Your task to perform on an android device: Clear the shopping cart on ebay. Search for apple airpods on ebay, select the first entry, and add it to the cart. Image 0: 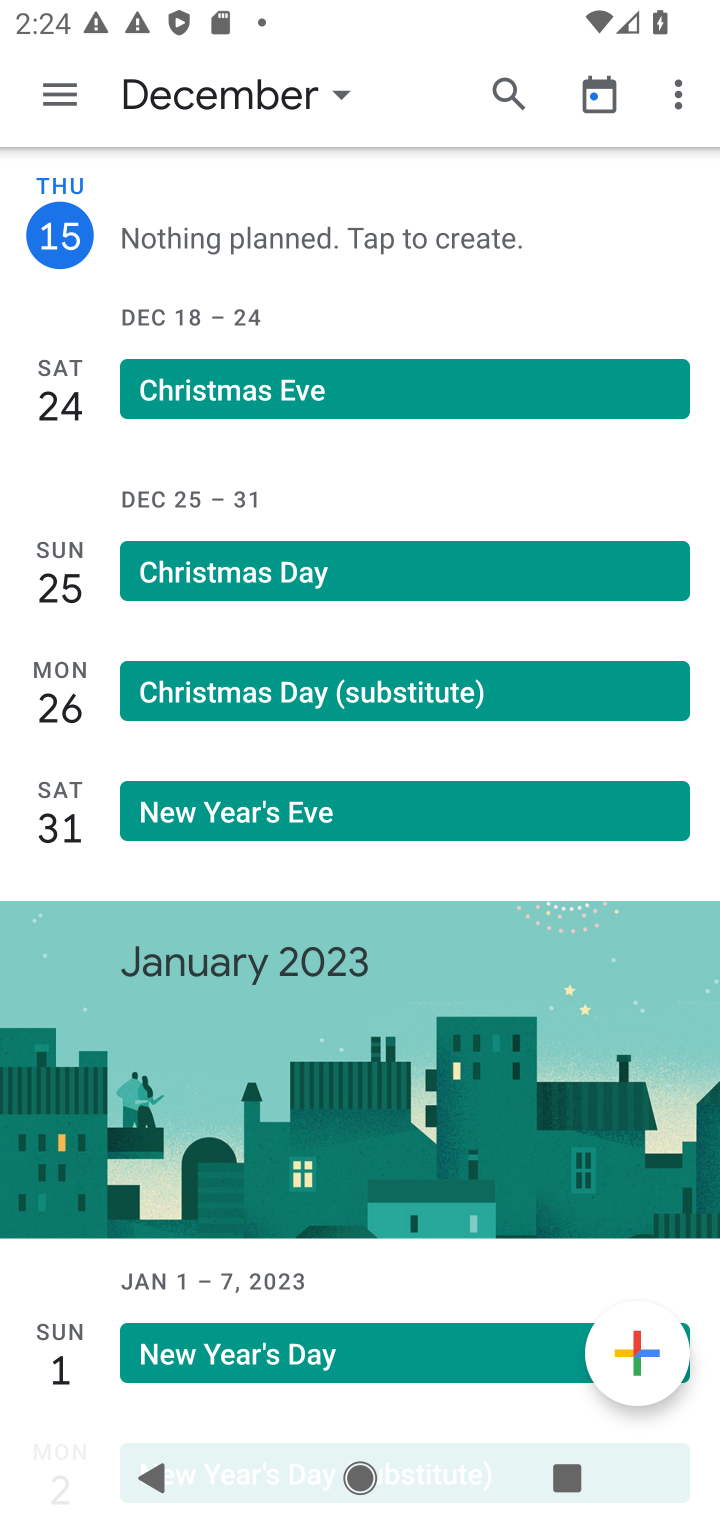
Step 0: press home button
Your task to perform on an android device: Clear the shopping cart on ebay. Search for apple airpods on ebay, select the first entry, and add it to the cart. Image 1: 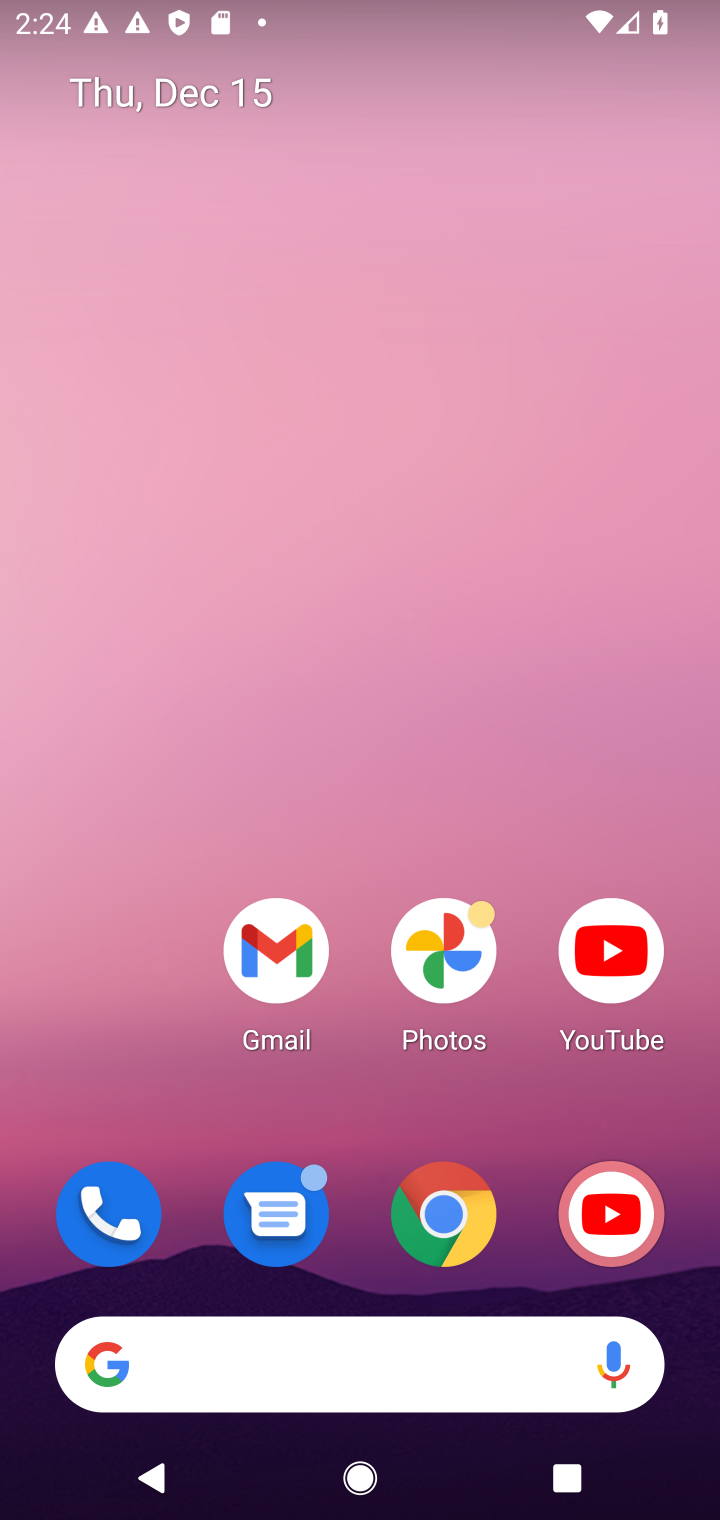
Step 1: click (442, 1224)
Your task to perform on an android device: Clear the shopping cart on ebay. Search for apple airpods on ebay, select the first entry, and add it to the cart. Image 2: 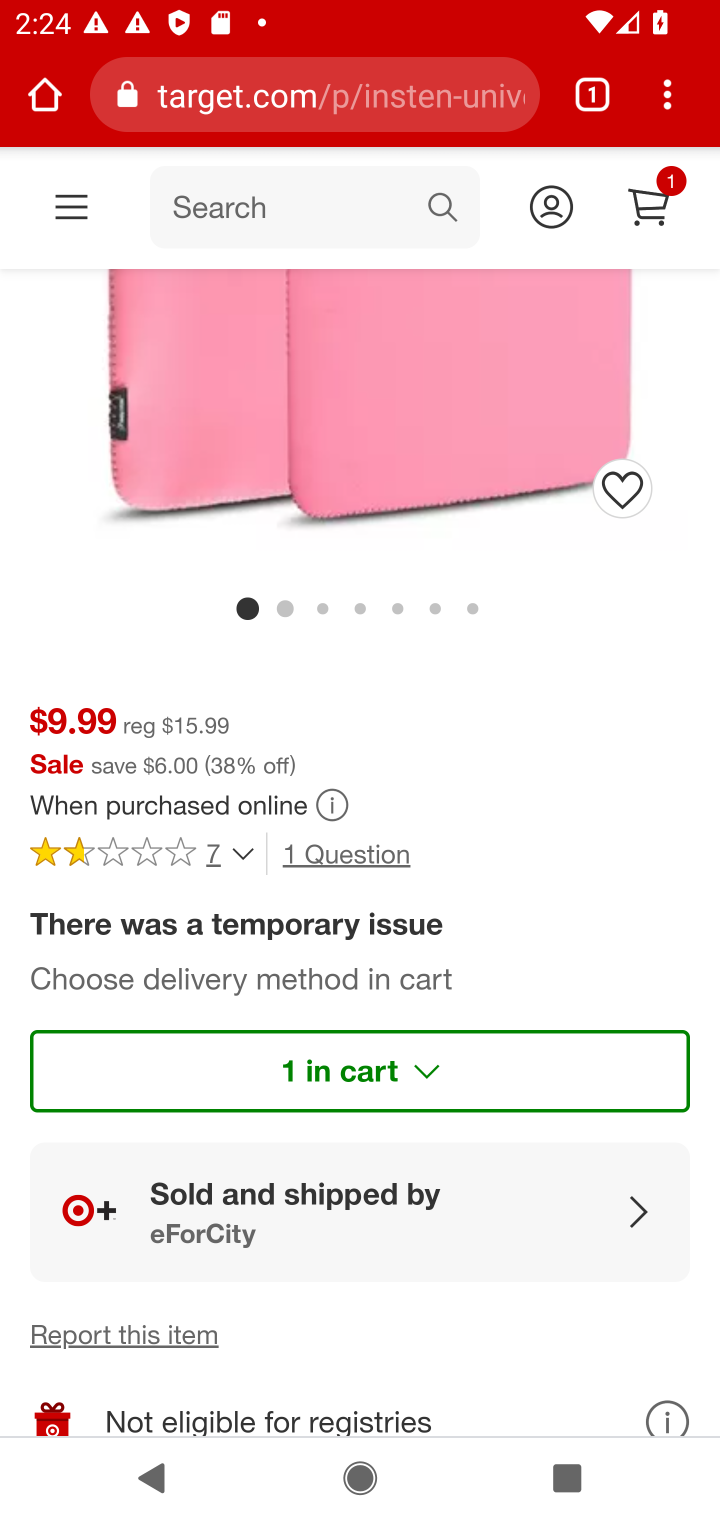
Step 2: click (296, 98)
Your task to perform on an android device: Clear the shopping cart on ebay. Search for apple airpods on ebay, select the first entry, and add it to the cart. Image 3: 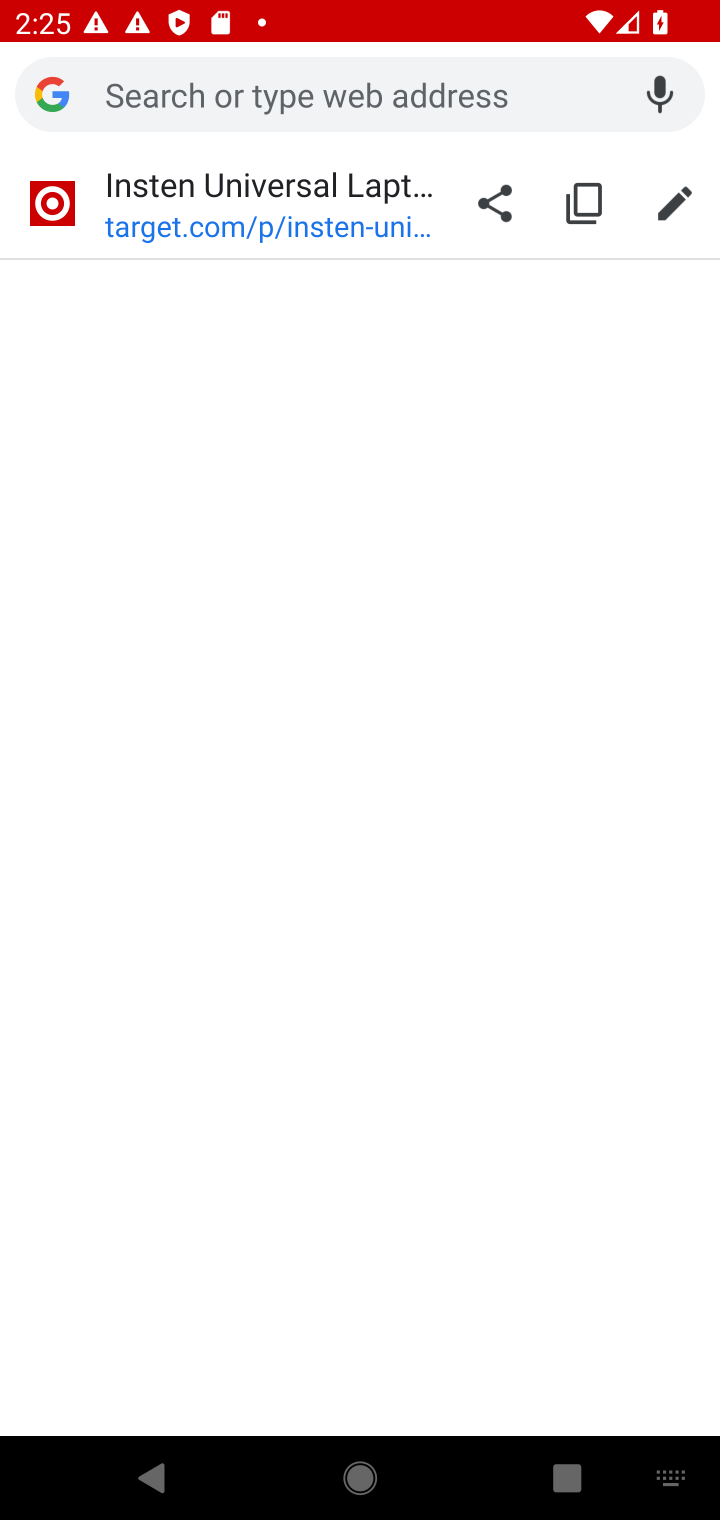
Step 3: type "ebay.com"
Your task to perform on an android device: Clear the shopping cart on ebay. Search for apple airpods on ebay, select the first entry, and add it to the cart. Image 4: 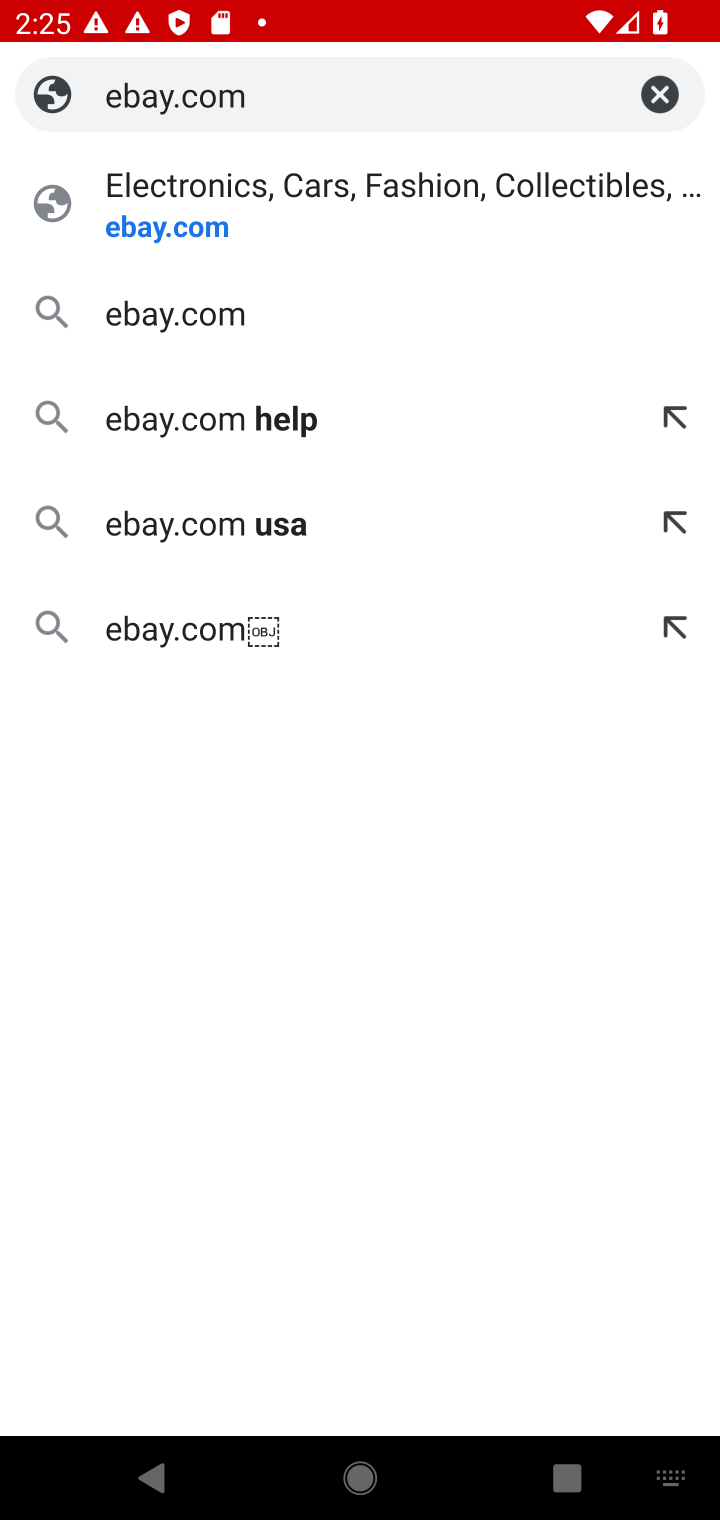
Step 4: click (139, 239)
Your task to perform on an android device: Clear the shopping cart on ebay. Search for apple airpods on ebay, select the first entry, and add it to the cart. Image 5: 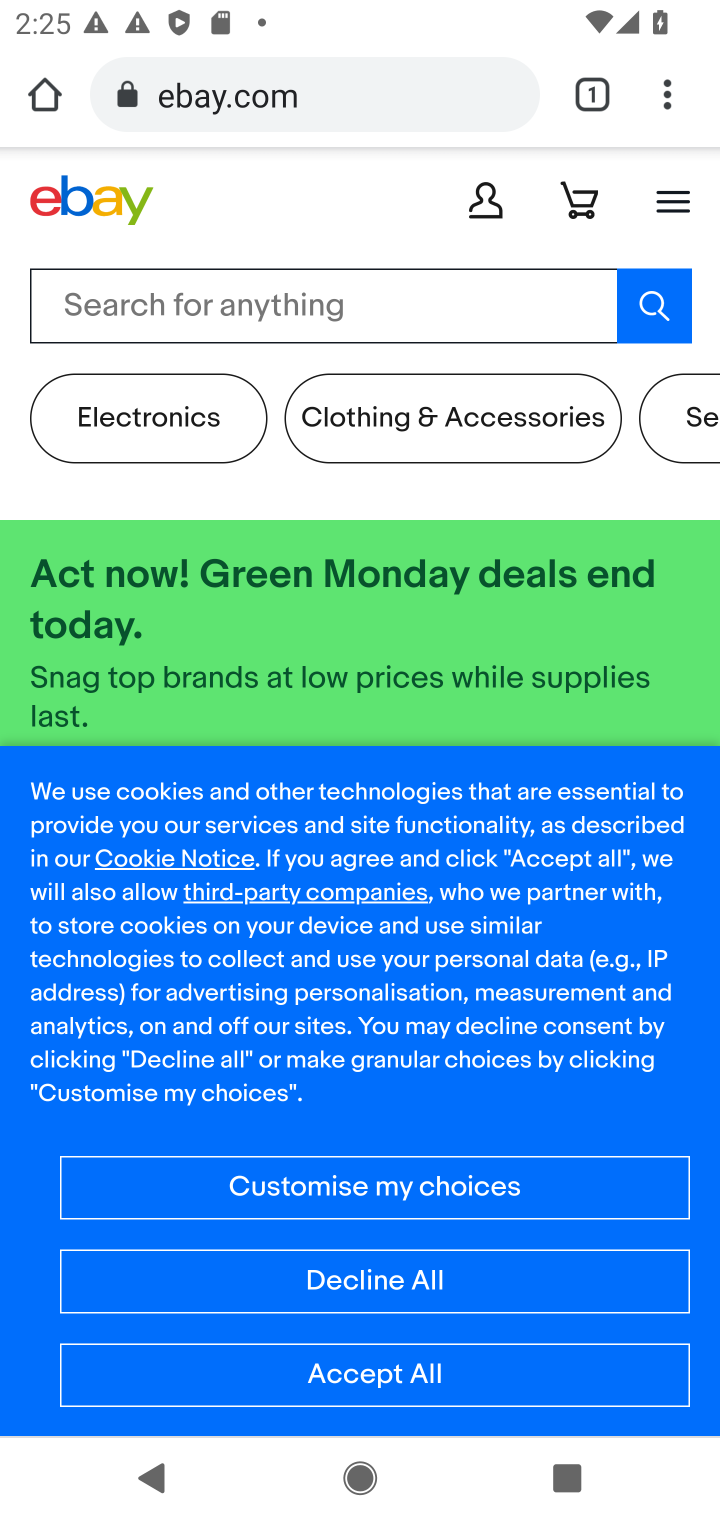
Step 5: click (583, 204)
Your task to perform on an android device: Clear the shopping cart on ebay. Search for apple airpods on ebay, select the first entry, and add it to the cart. Image 6: 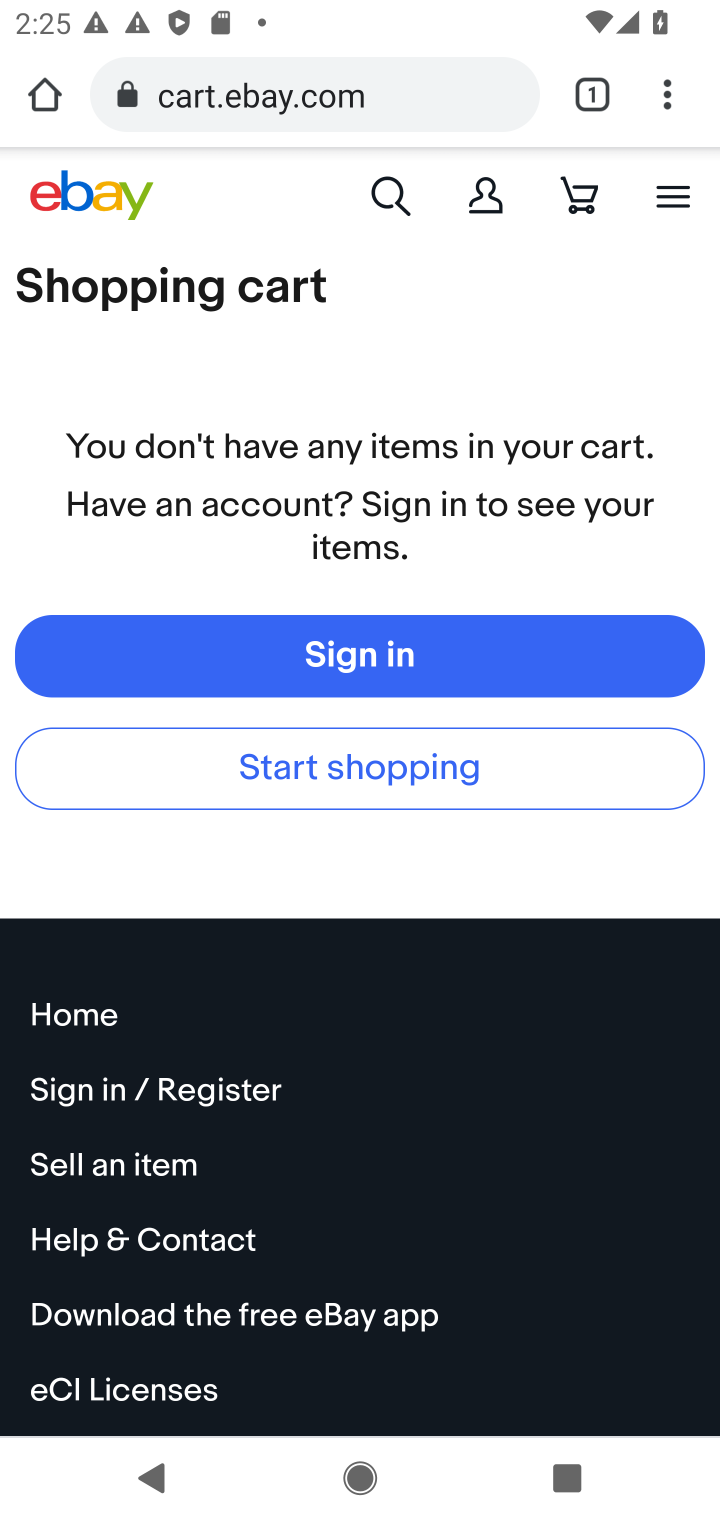
Step 6: click (393, 185)
Your task to perform on an android device: Clear the shopping cart on ebay. Search for apple airpods on ebay, select the first entry, and add it to the cart. Image 7: 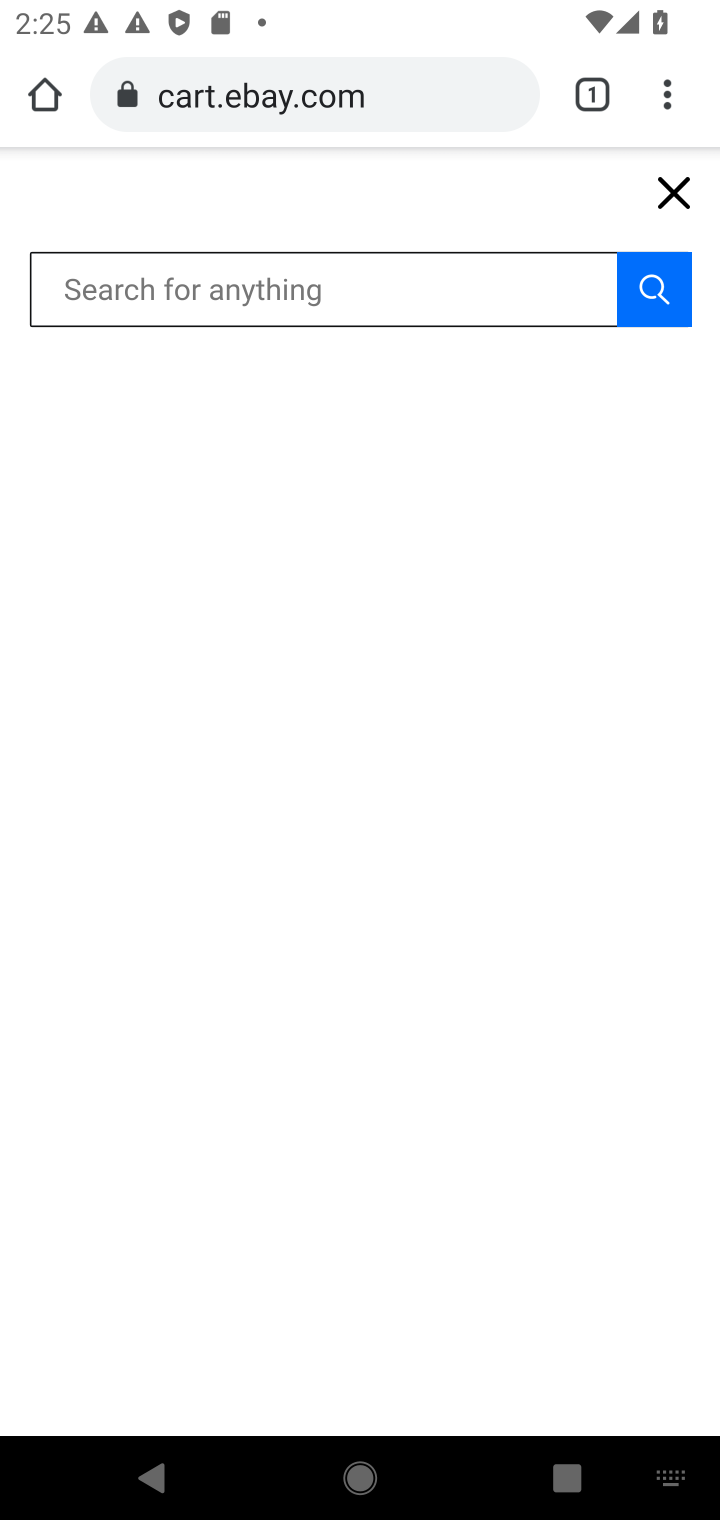
Step 7: type " apple airpods"
Your task to perform on an android device: Clear the shopping cart on ebay. Search for apple airpods on ebay, select the first entry, and add it to the cart. Image 8: 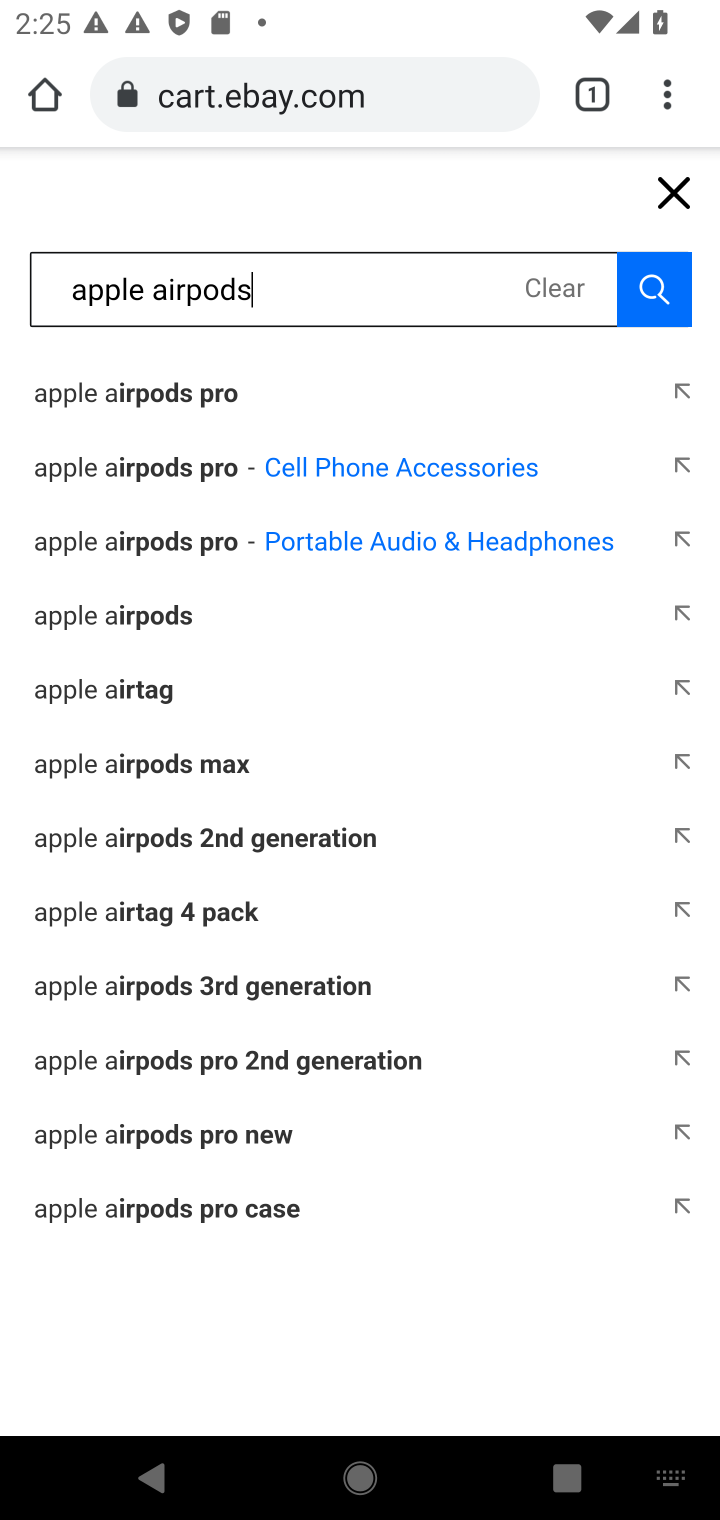
Step 8: click (122, 616)
Your task to perform on an android device: Clear the shopping cart on ebay. Search for apple airpods on ebay, select the first entry, and add it to the cart. Image 9: 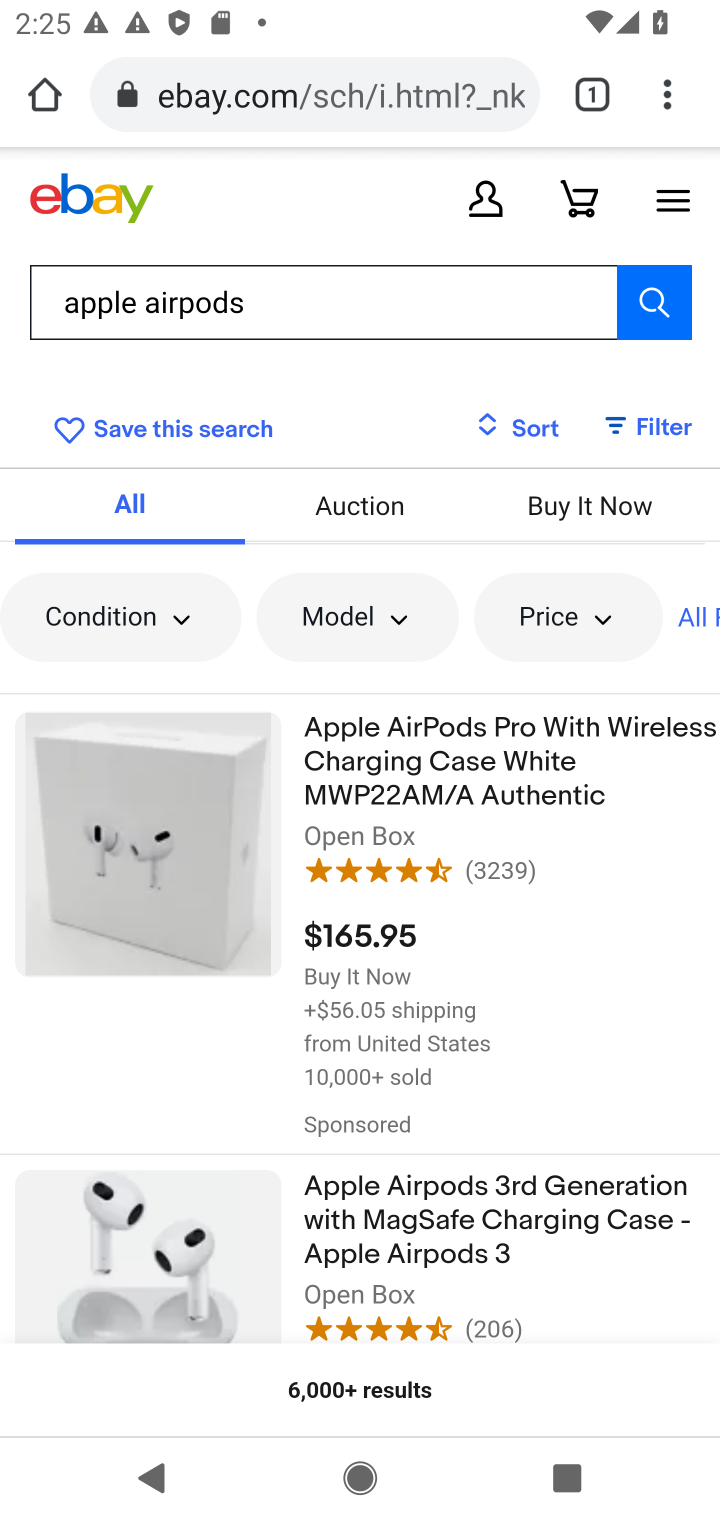
Step 9: click (369, 799)
Your task to perform on an android device: Clear the shopping cart on ebay. Search for apple airpods on ebay, select the first entry, and add it to the cart. Image 10: 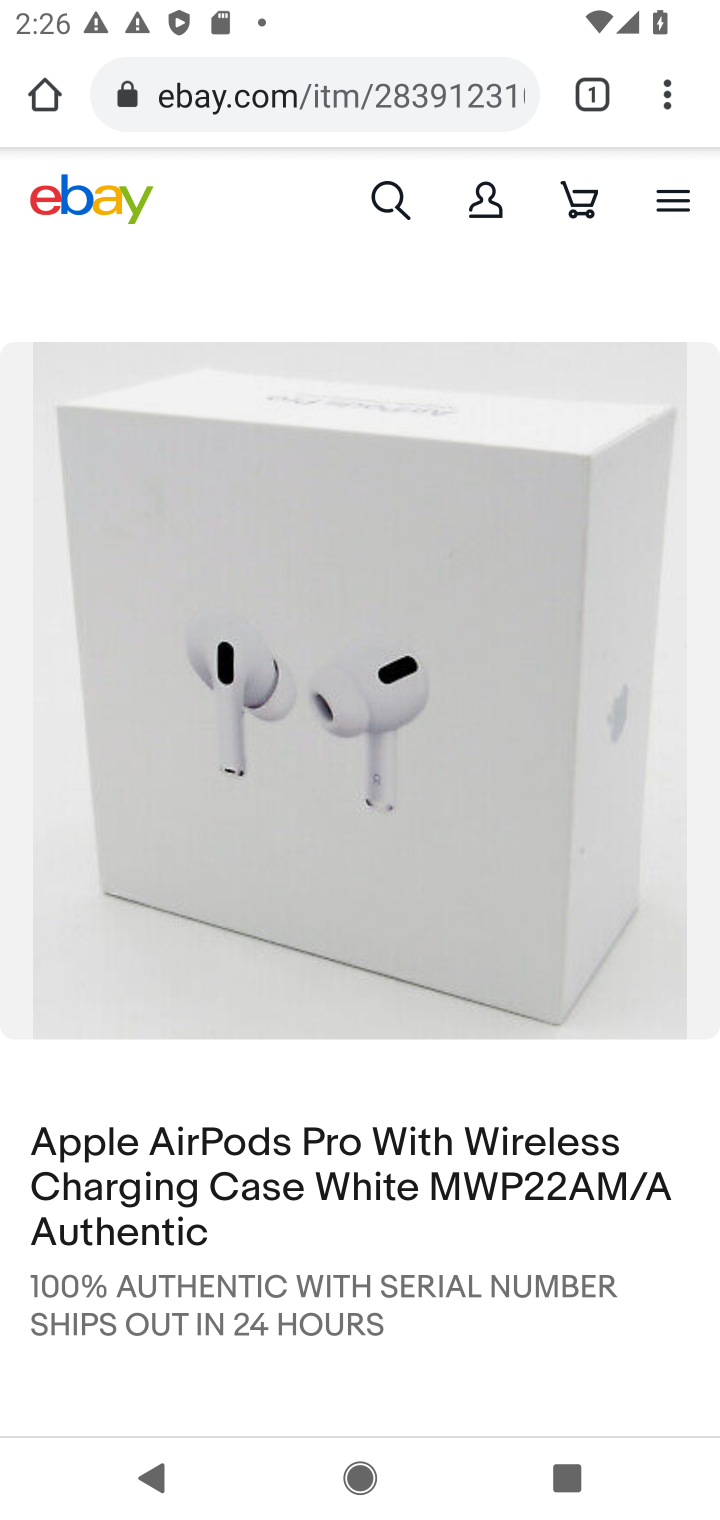
Step 10: drag from (362, 1002) to (333, 628)
Your task to perform on an android device: Clear the shopping cart on ebay. Search for apple airpods on ebay, select the first entry, and add it to the cart. Image 11: 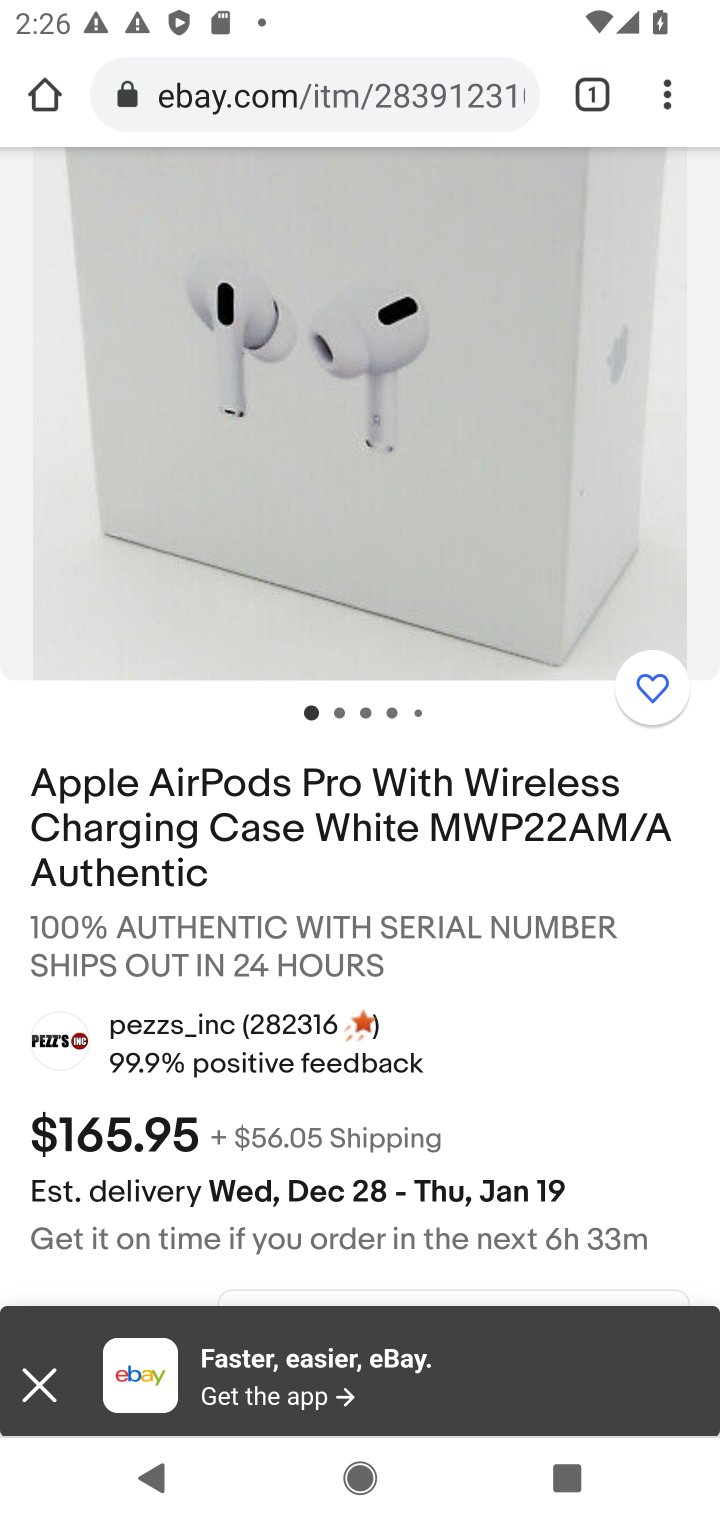
Step 11: drag from (435, 919) to (391, 576)
Your task to perform on an android device: Clear the shopping cart on ebay. Search for apple airpods on ebay, select the first entry, and add it to the cart. Image 12: 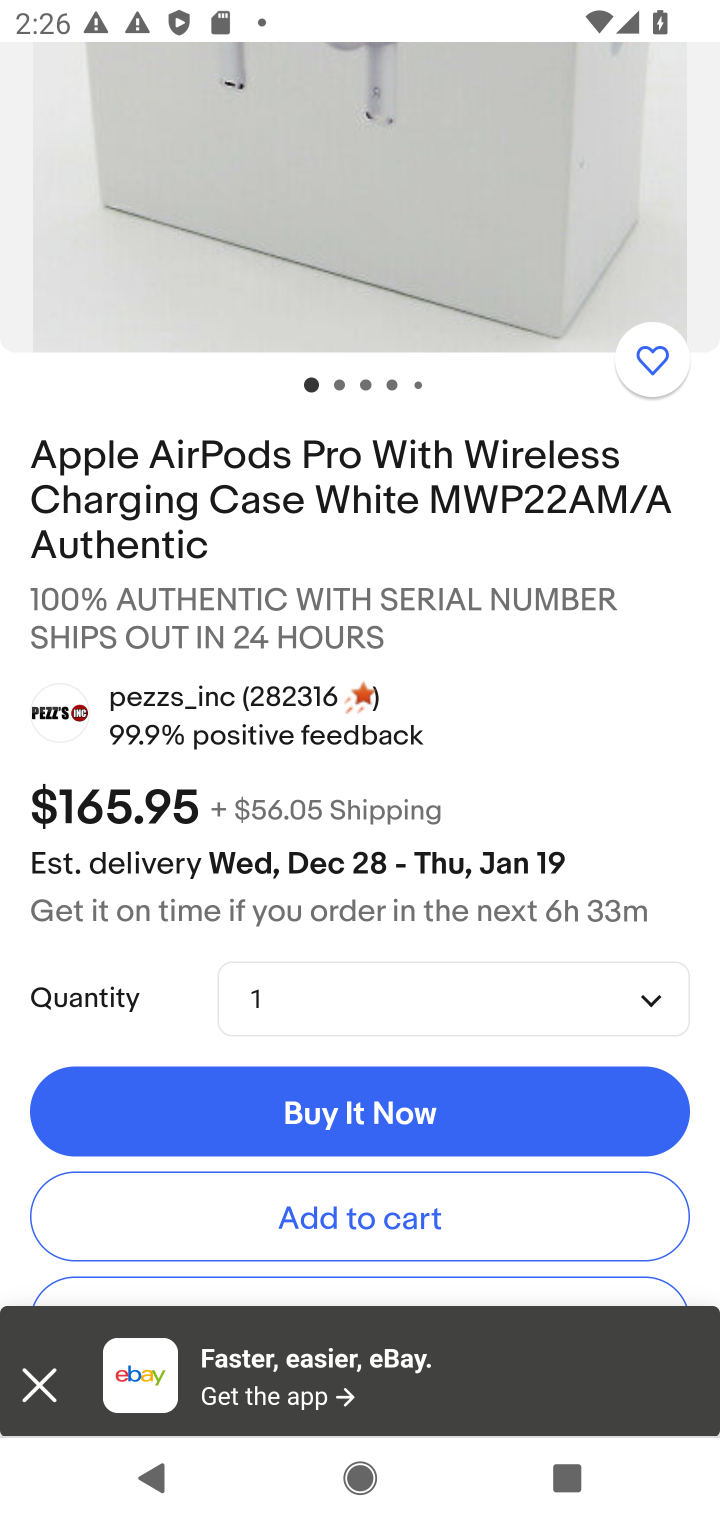
Step 12: click (333, 1213)
Your task to perform on an android device: Clear the shopping cart on ebay. Search for apple airpods on ebay, select the first entry, and add it to the cart. Image 13: 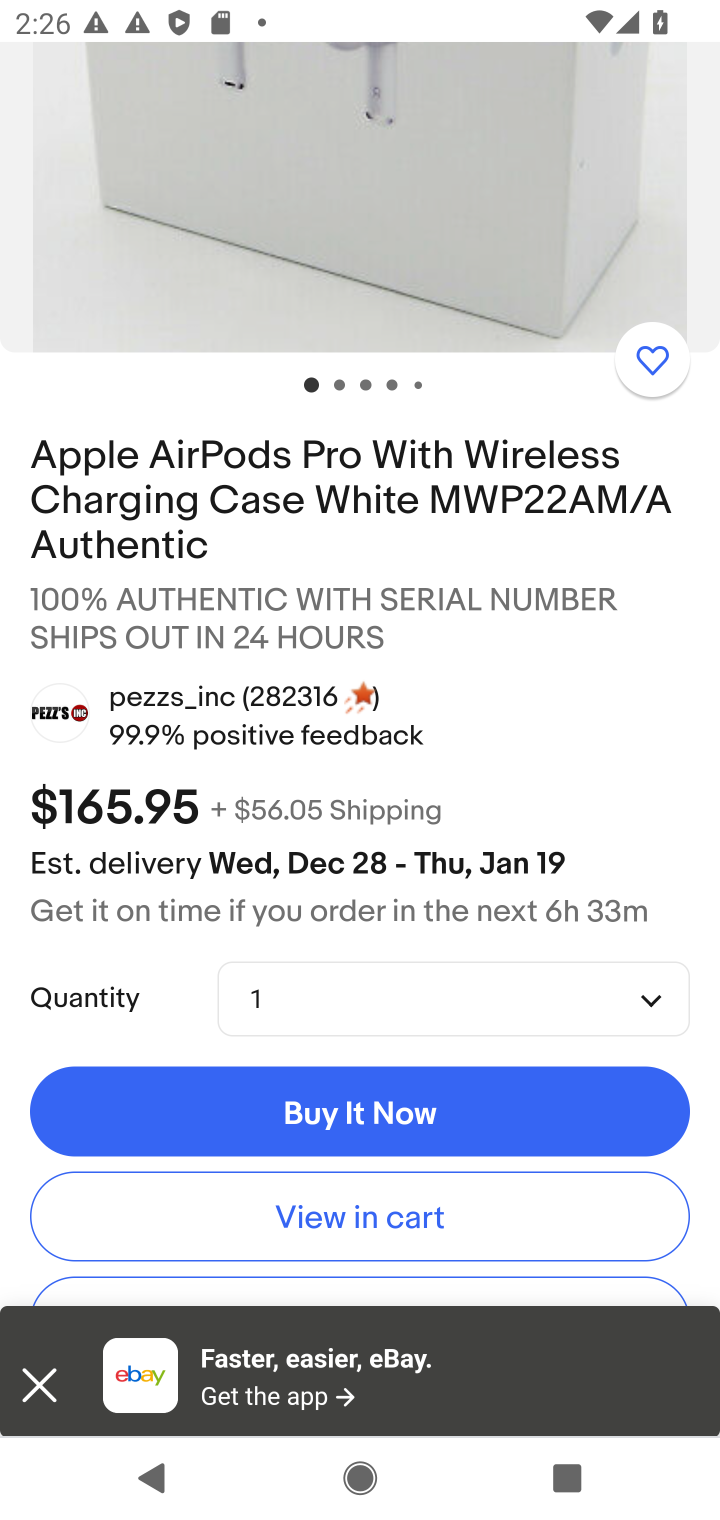
Step 13: task complete